Your task to perform on an android device: Add "razer naga" to the cart on costco.com, then select checkout. Image 0: 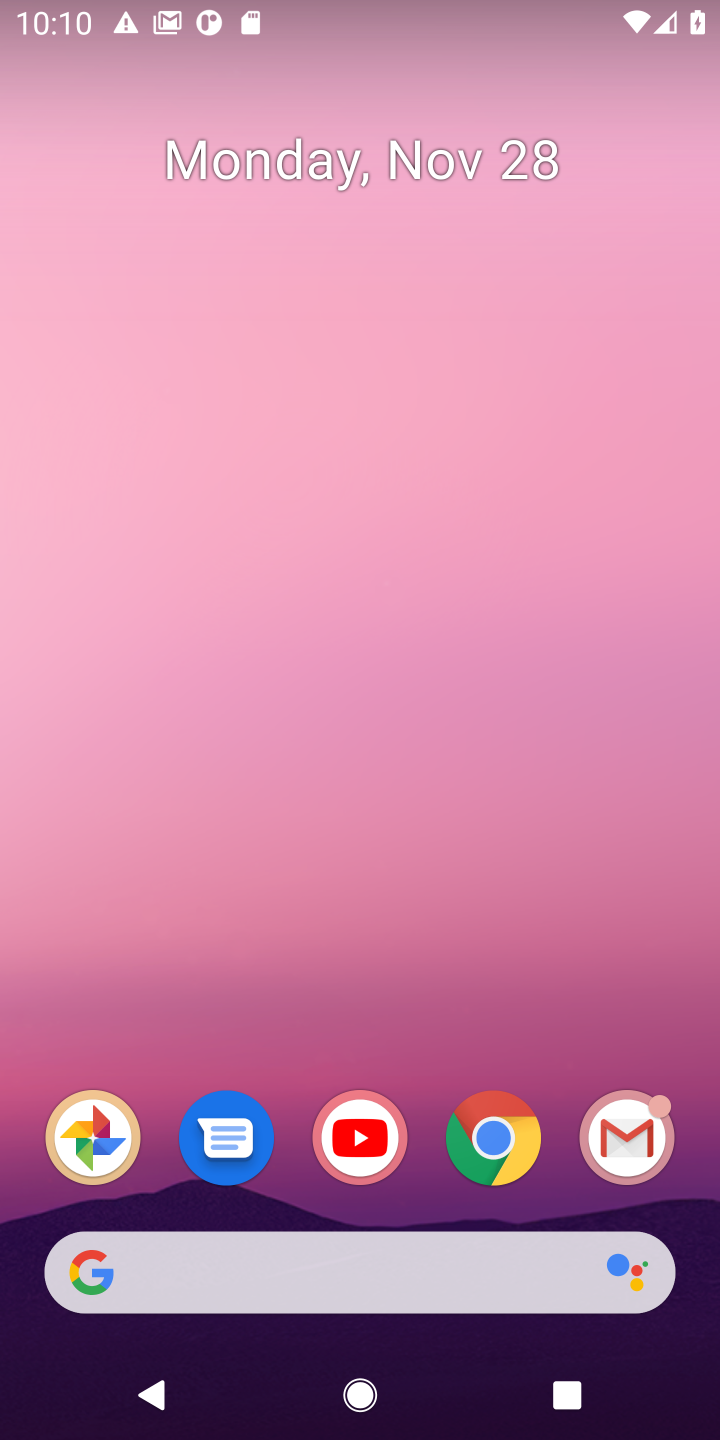
Step 0: click (511, 1145)
Your task to perform on an android device: Add "razer naga" to the cart on costco.com, then select checkout. Image 1: 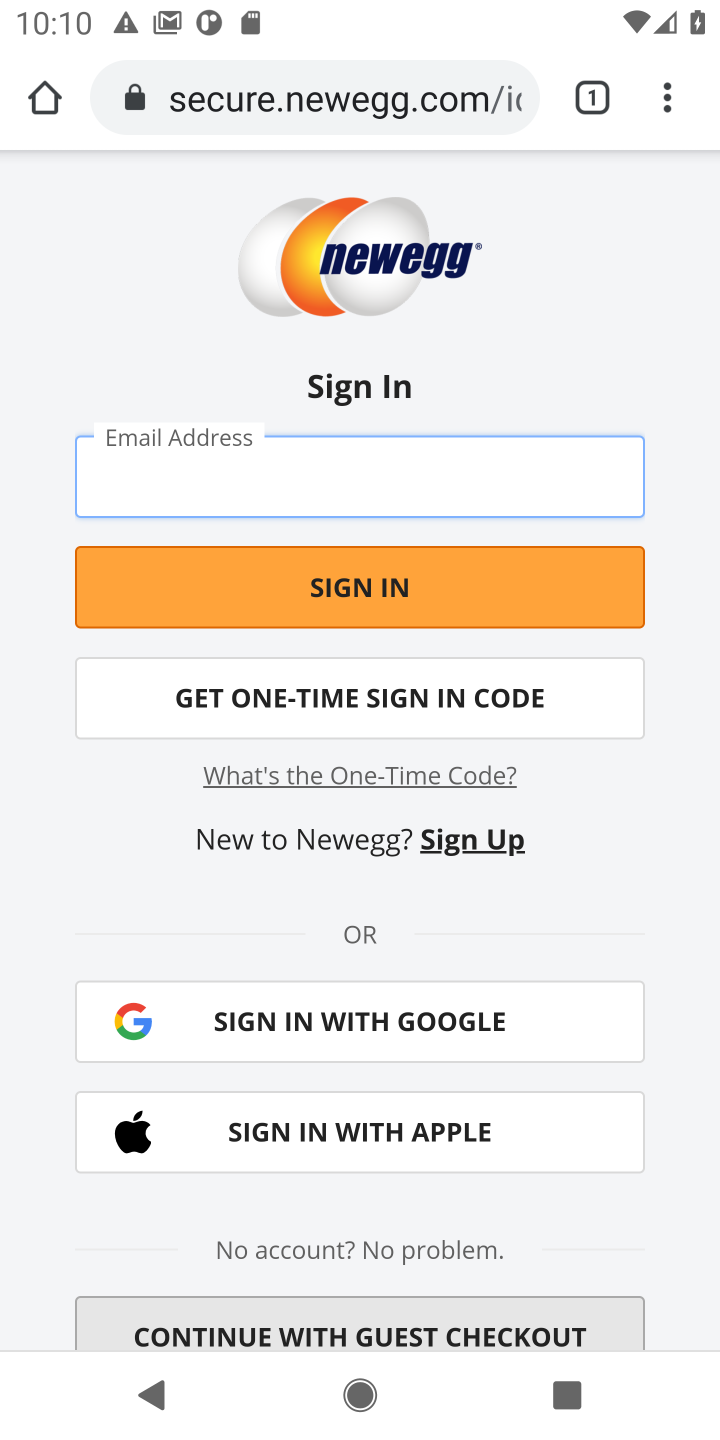
Step 1: click (294, 92)
Your task to perform on an android device: Add "razer naga" to the cart on costco.com, then select checkout. Image 2: 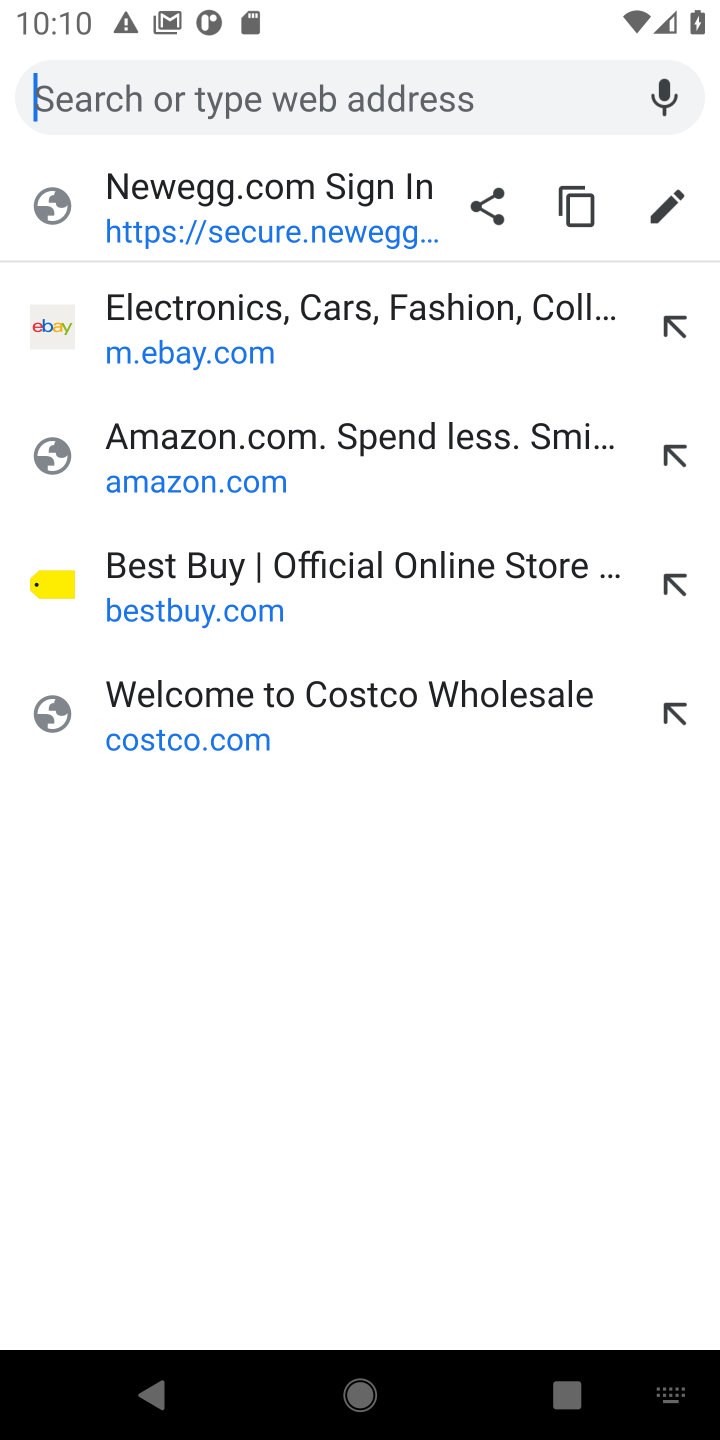
Step 2: click (129, 678)
Your task to perform on an android device: Add "razer naga" to the cart on costco.com, then select checkout. Image 3: 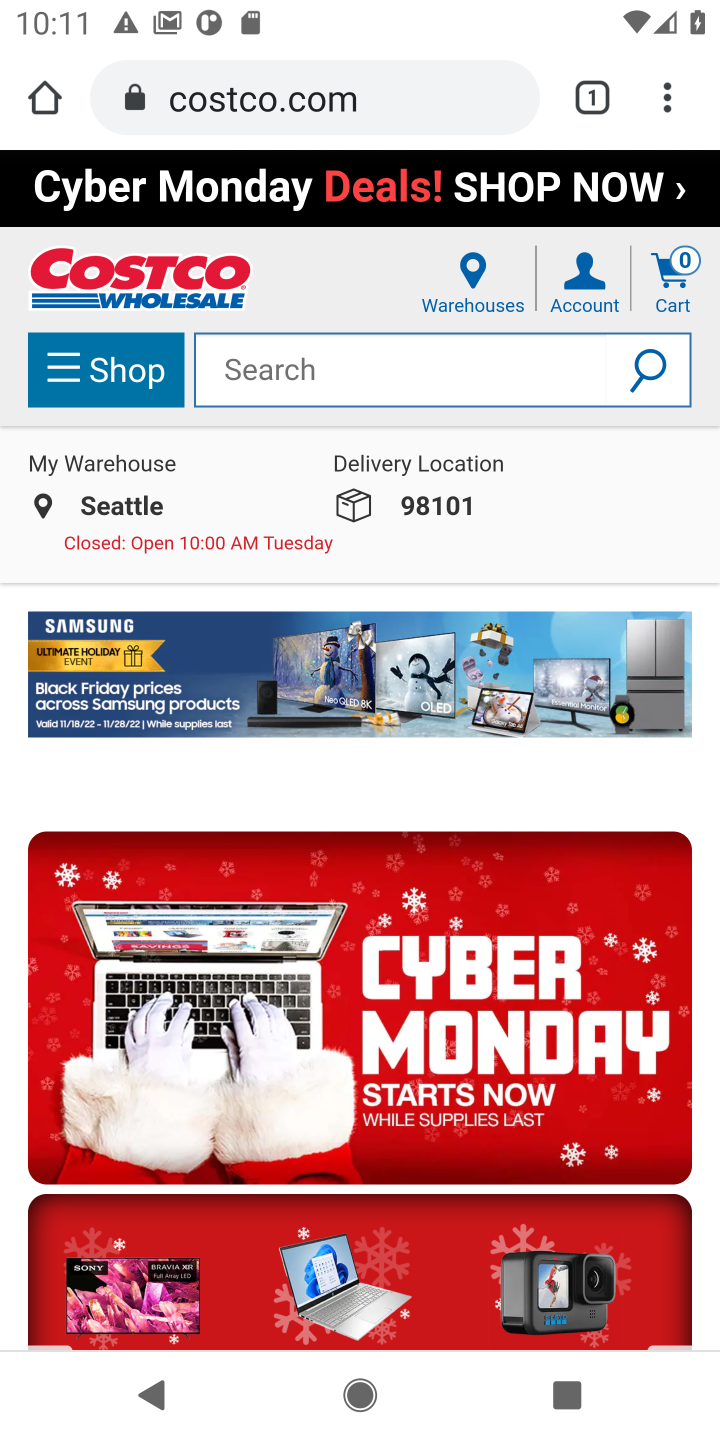
Step 3: click (236, 365)
Your task to perform on an android device: Add "razer naga" to the cart on costco.com, then select checkout. Image 4: 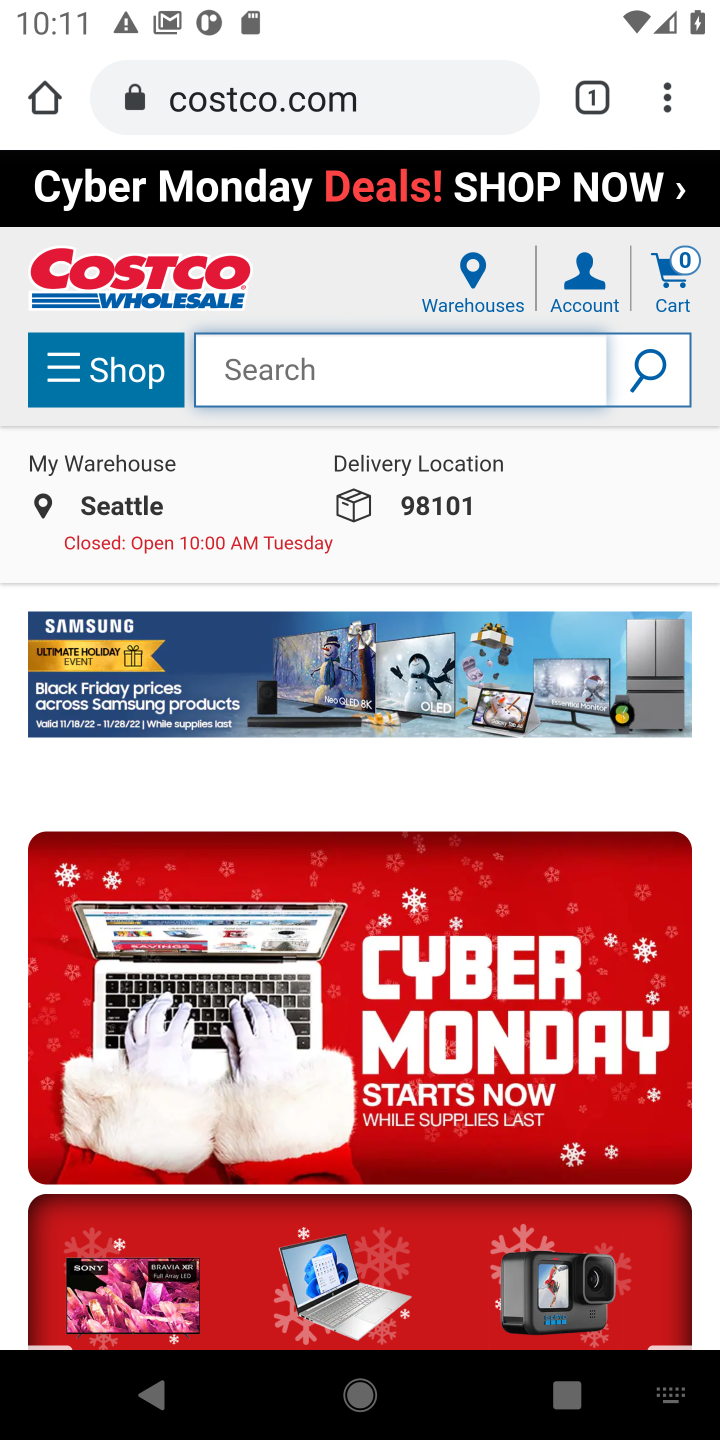
Step 4: type "razer naga"
Your task to perform on an android device: Add "razer naga" to the cart on costco.com, then select checkout. Image 5: 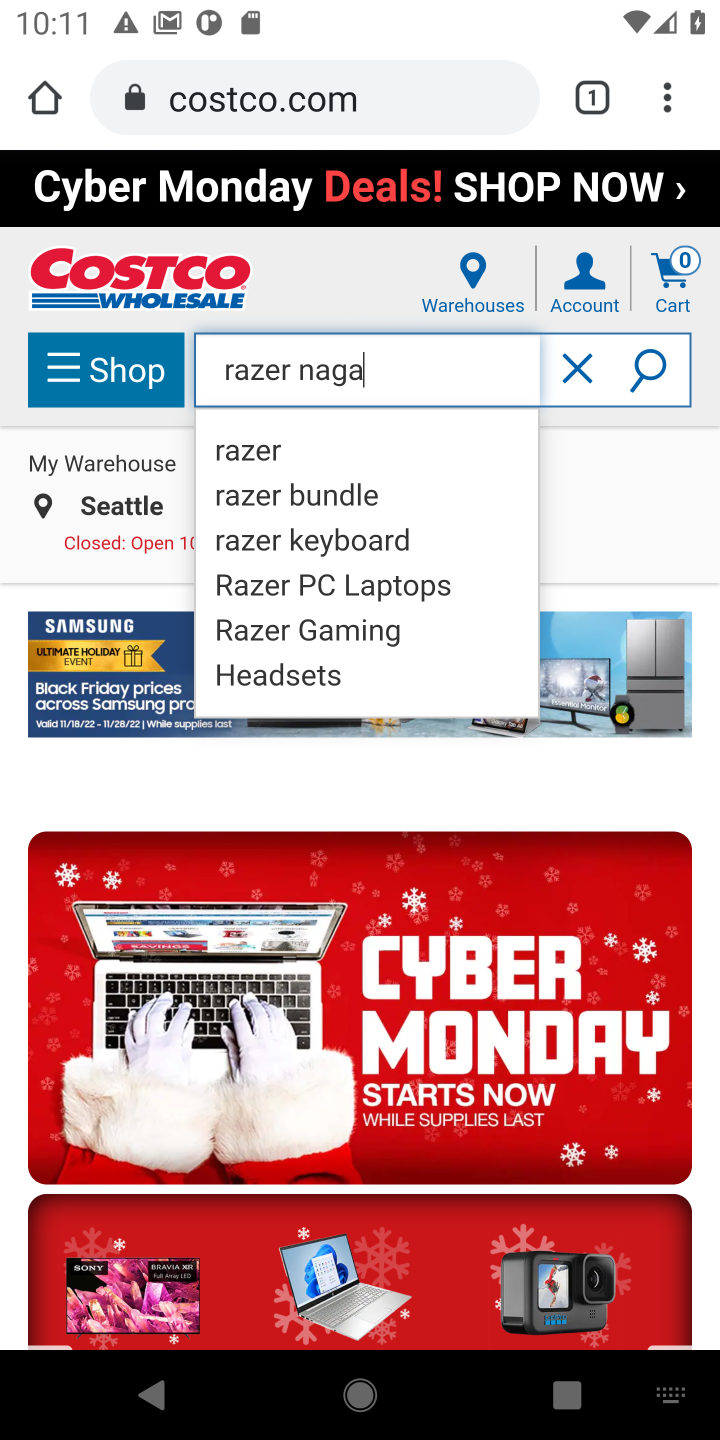
Step 5: click (654, 370)
Your task to perform on an android device: Add "razer naga" to the cart on costco.com, then select checkout. Image 6: 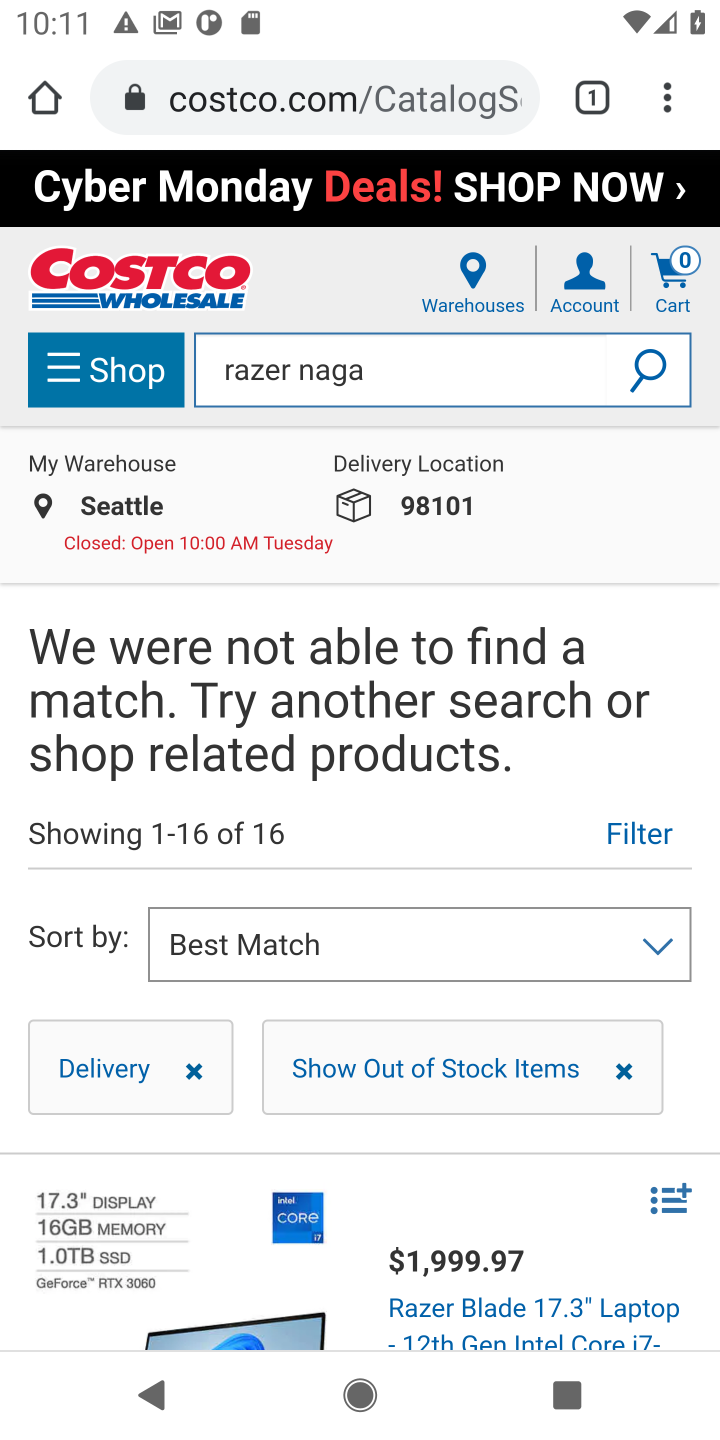
Step 6: task complete